Your task to perform on an android device: open a bookmark in the chrome app Image 0: 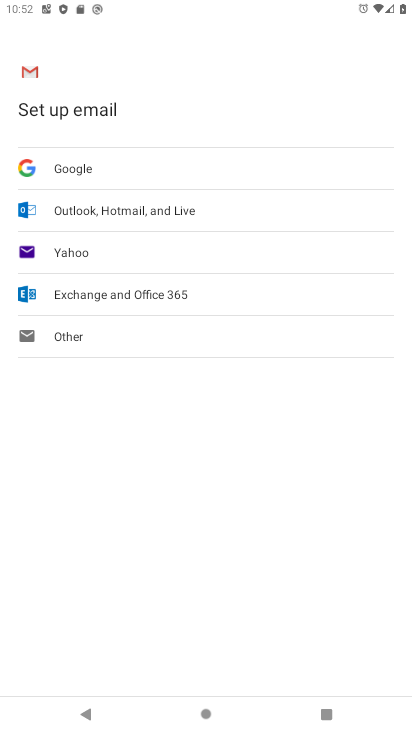
Step 0: press home button
Your task to perform on an android device: open a bookmark in the chrome app Image 1: 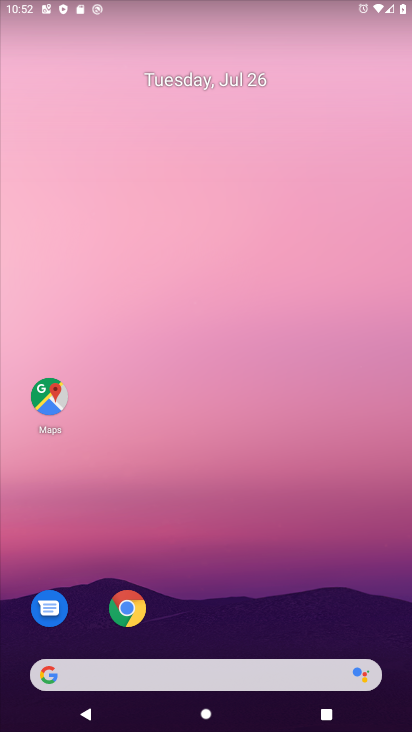
Step 1: click (129, 614)
Your task to perform on an android device: open a bookmark in the chrome app Image 2: 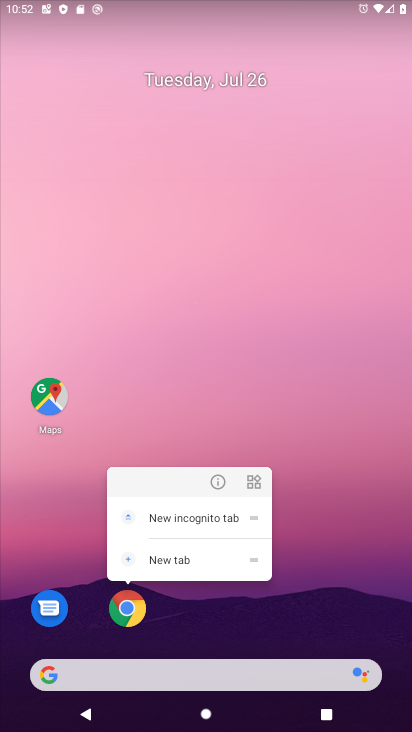
Step 2: click (128, 613)
Your task to perform on an android device: open a bookmark in the chrome app Image 3: 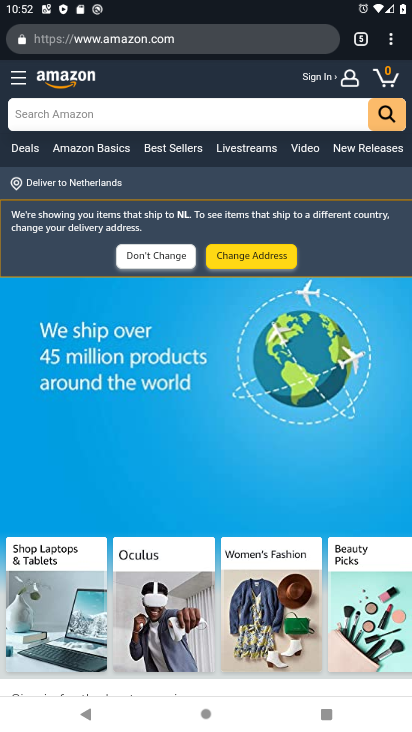
Step 3: click (389, 48)
Your task to perform on an android device: open a bookmark in the chrome app Image 4: 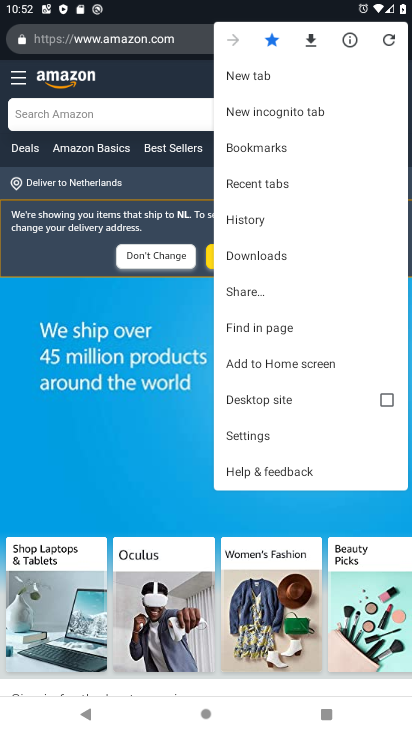
Step 4: click (255, 149)
Your task to perform on an android device: open a bookmark in the chrome app Image 5: 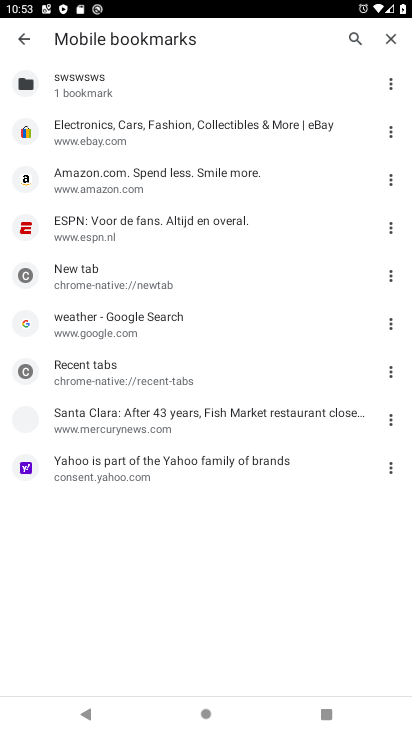
Step 5: click (121, 133)
Your task to perform on an android device: open a bookmark in the chrome app Image 6: 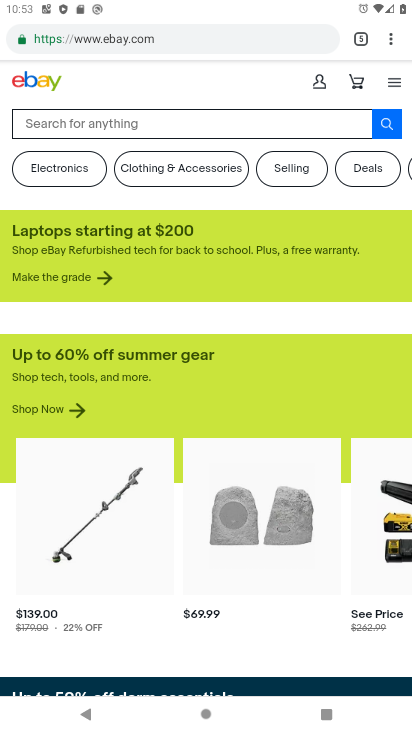
Step 6: task complete